Your task to perform on an android device: toggle notification dots Image 0: 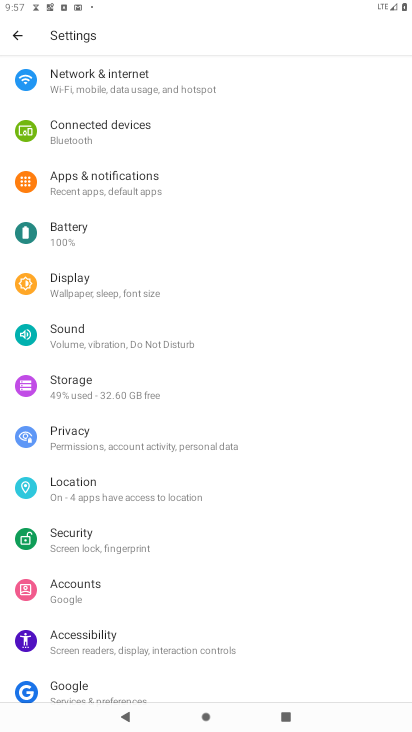
Step 0: click (119, 194)
Your task to perform on an android device: toggle notification dots Image 1: 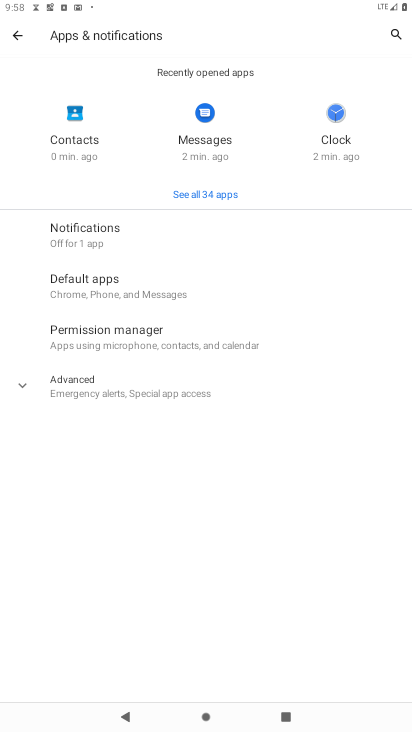
Step 1: click (124, 390)
Your task to perform on an android device: toggle notification dots Image 2: 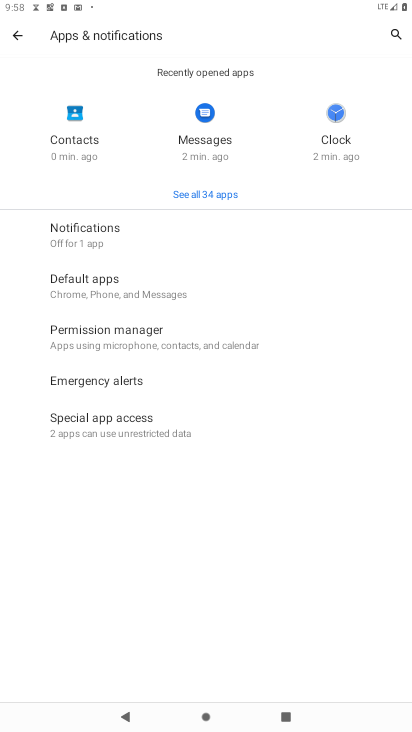
Step 2: click (91, 239)
Your task to perform on an android device: toggle notification dots Image 3: 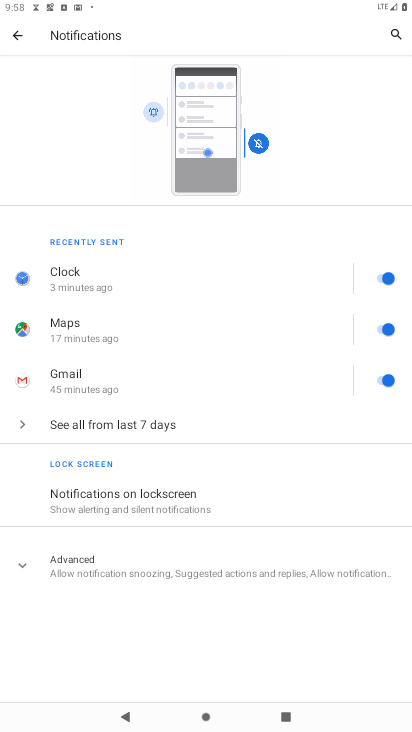
Step 3: click (159, 566)
Your task to perform on an android device: toggle notification dots Image 4: 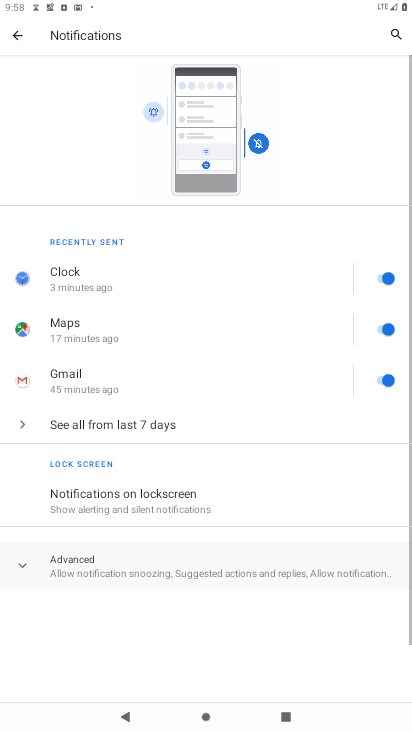
Step 4: drag from (159, 553) to (188, 272)
Your task to perform on an android device: toggle notification dots Image 5: 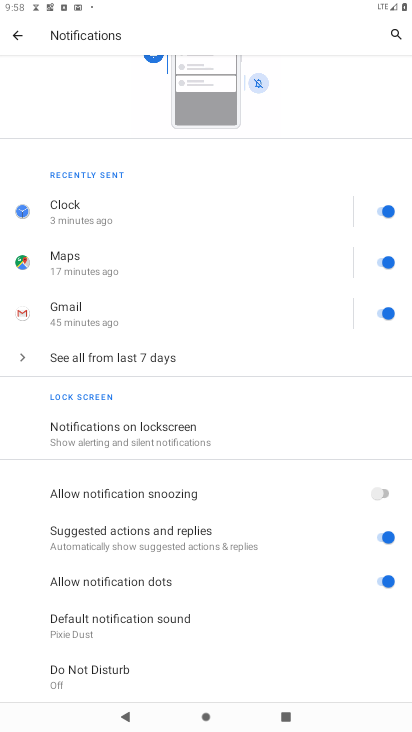
Step 5: click (392, 581)
Your task to perform on an android device: toggle notification dots Image 6: 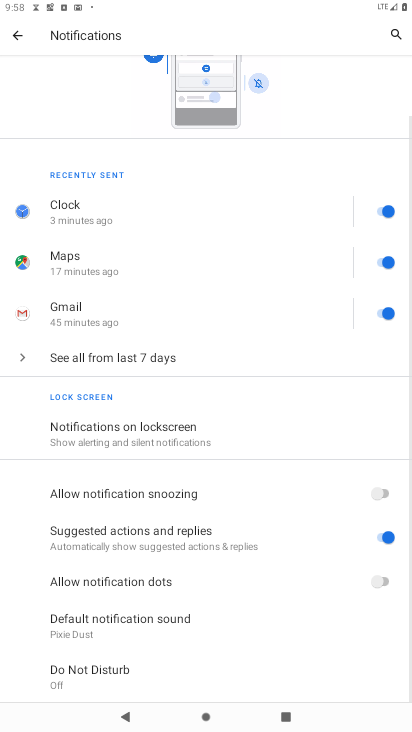
Step 6: task complete